Your task to perform on an android device: Open Yahoo.com Image 0: 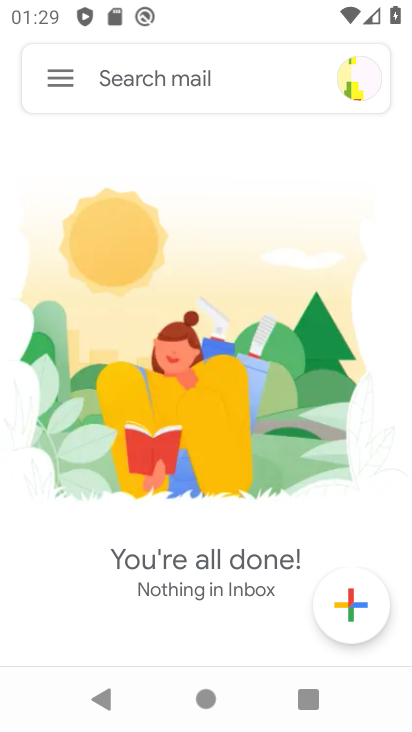
Step 0: press home button
Your task to perform on an android device: Open Yahoo.com Image 1: 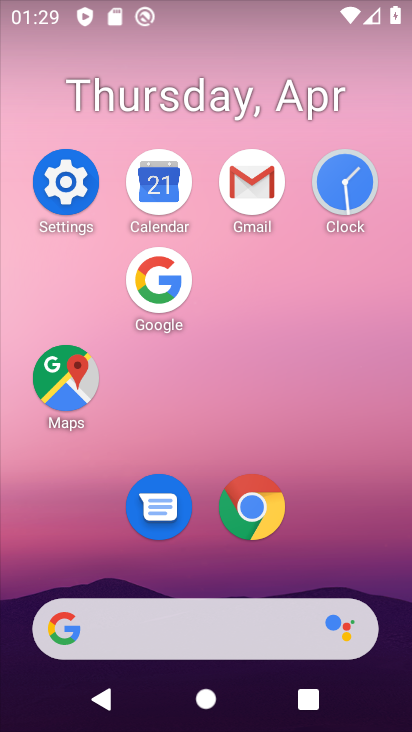
Step 1: click (270, 511)
Your task to perform on an android device: Open Yahoo.com Image 2: 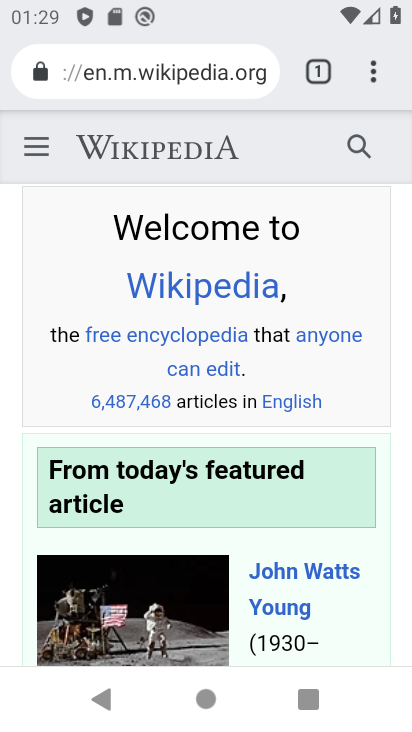
Step 2: click (313, 67)
Your task to perform on an android device: Open Yahoo.com Image 3: 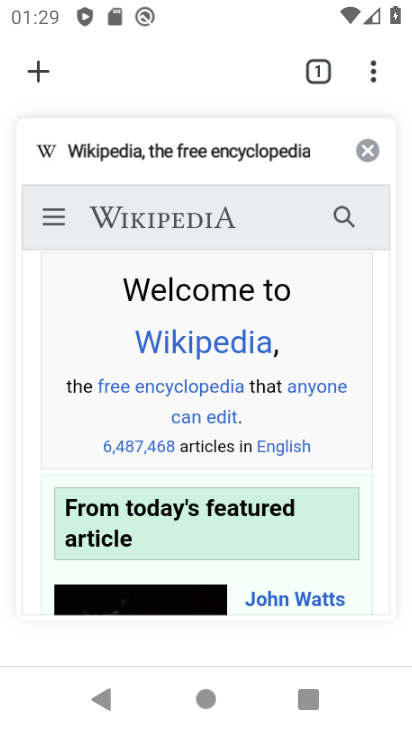
Step 3: click (40, 60)
Your task to perform on an android device: Open Yahoo.com Image 4: 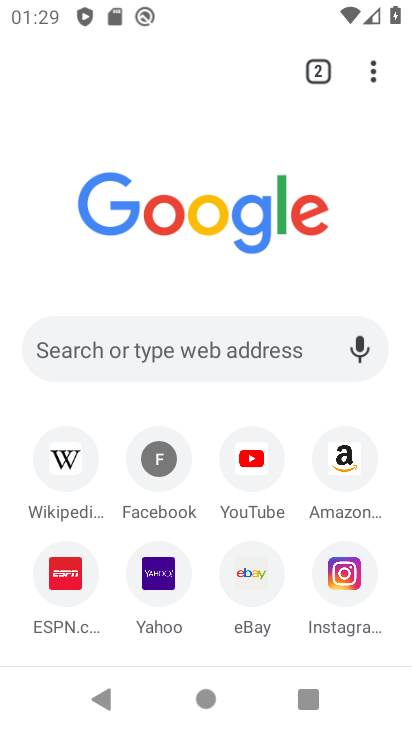
Step 4: click (174, 576)
Your task to perform on an android device: Open Yahoo.com Image 5: 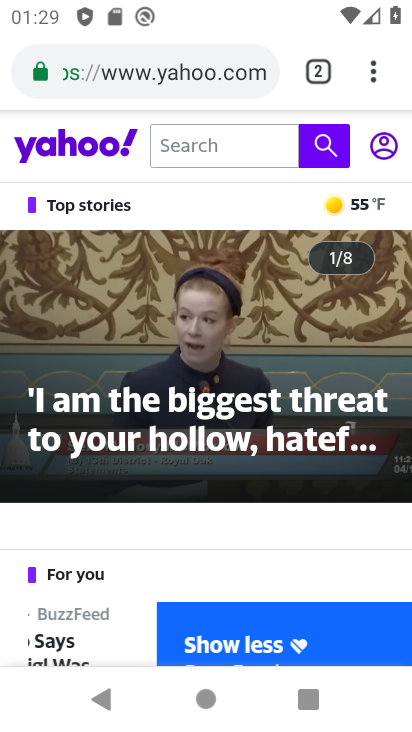
Step 5: task complete